Your task to perform on an android device: toggle airplane mode Image 0: 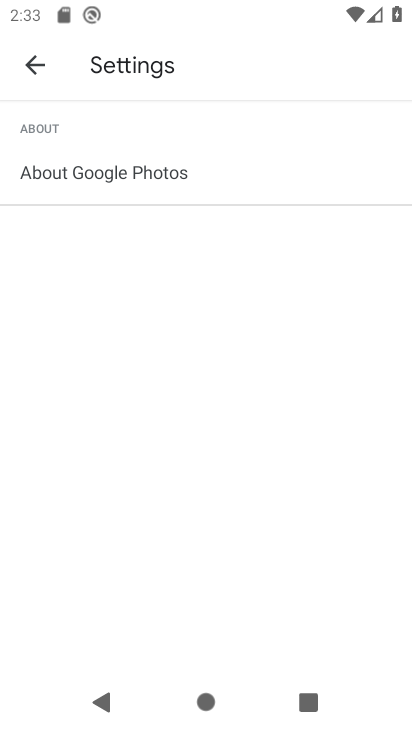
Step 0: press home button
Your task to perform on an android device: toggle airplane mode Image 1: 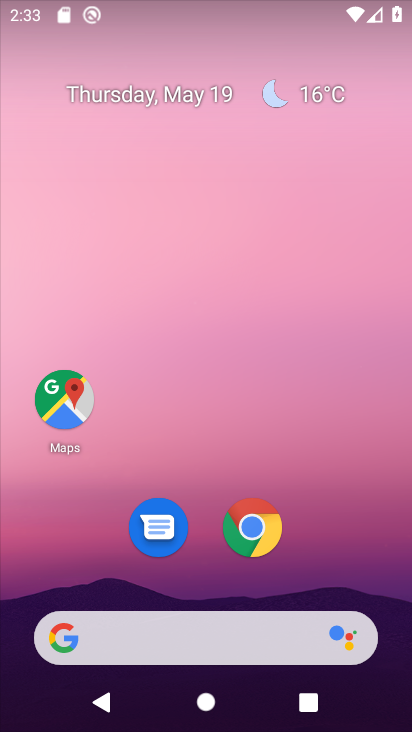
Step 1: drag from (317, 507) to (208, 78)
Your task to perform on an android device: toggle airplane mode Image 2: 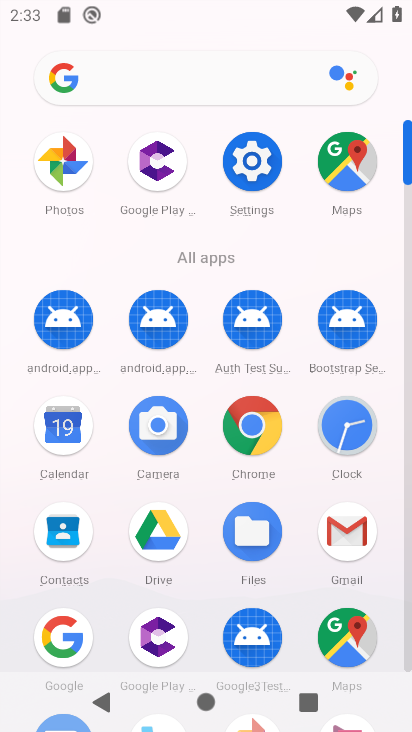
Step 2: click (239, 159)
Your task to perform on an android device: toggle airplane mode Image 3: 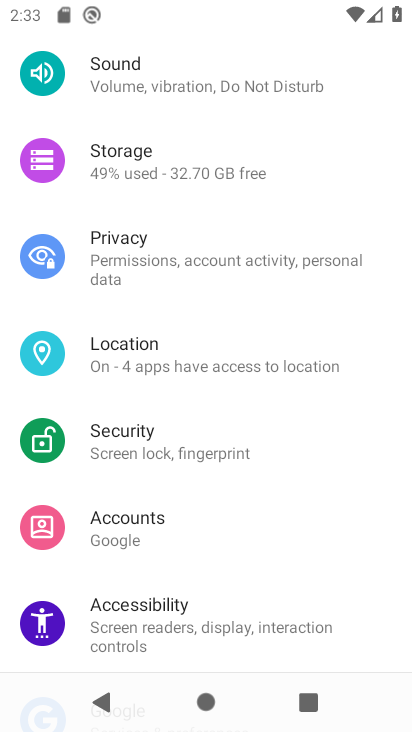
Step 3: drag from (227, 518) to (203, 222)
Your task to perform on an android device: toggle airplane mode Image 4: 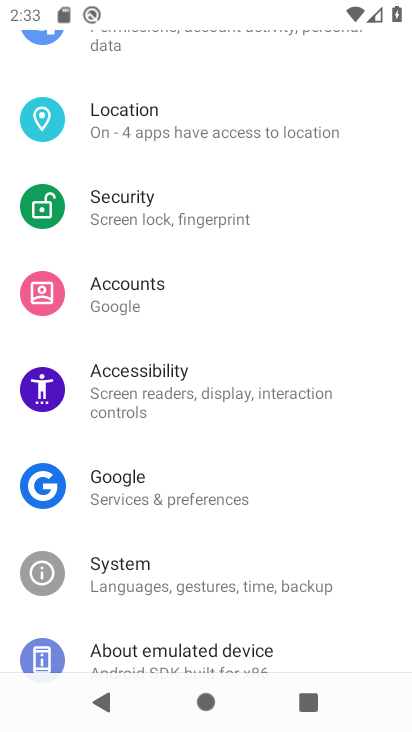
Step 4: drag from (212, 108) to (182, 649)
Your task to perform on an android device: toggle airplane mode Image 5: 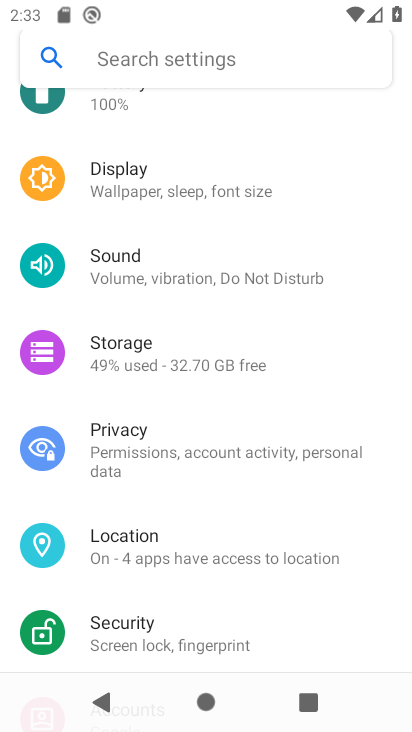
Step 5: drag from (202, 325) to (189, 623)
Your task to perform on an android device: toggle airplane mode Image 6: 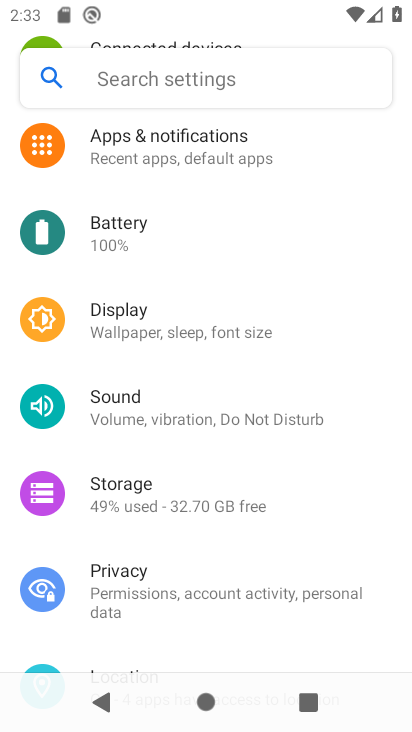
Step 6: drag from (230, 173) to (202, 630)
Your task to perform on an android device: toggle airplane mode Image 7: 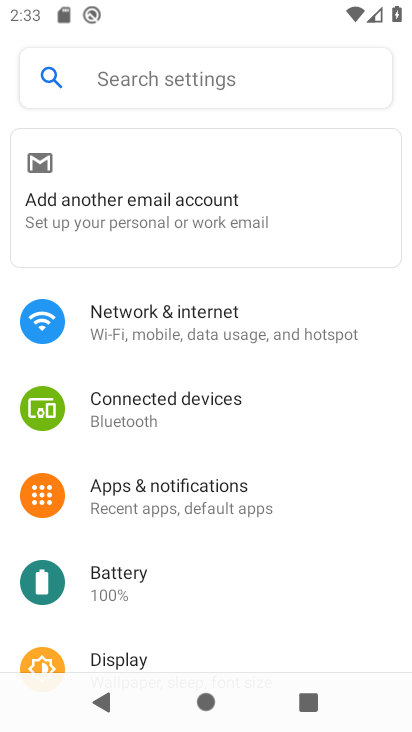
Step 7: click (170, 316)
Your task to perform on an android device: toggle airplane mode Image 8: 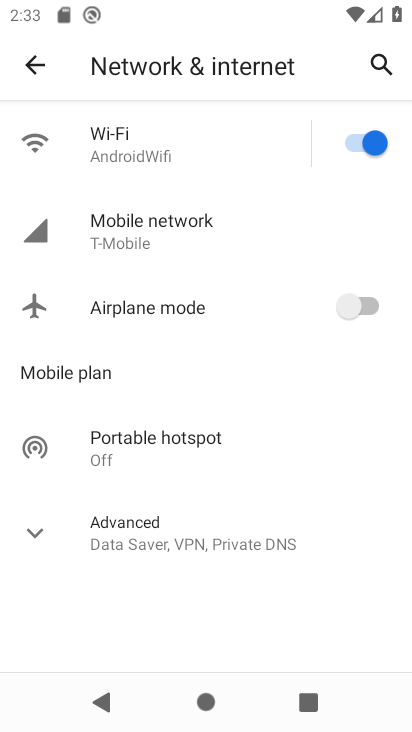
Step 8: click (352, 306)
Your task to perform on an android device: toggle airplane mode Image 9: 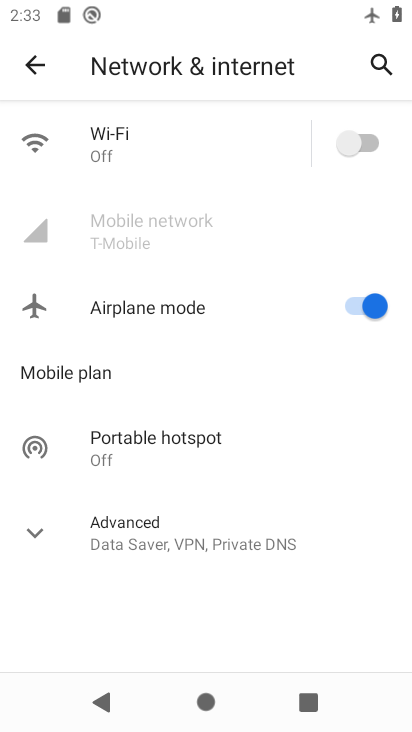
Step 9: task complete